Your task to perform on an android device: turn off sleep mode Image 0: 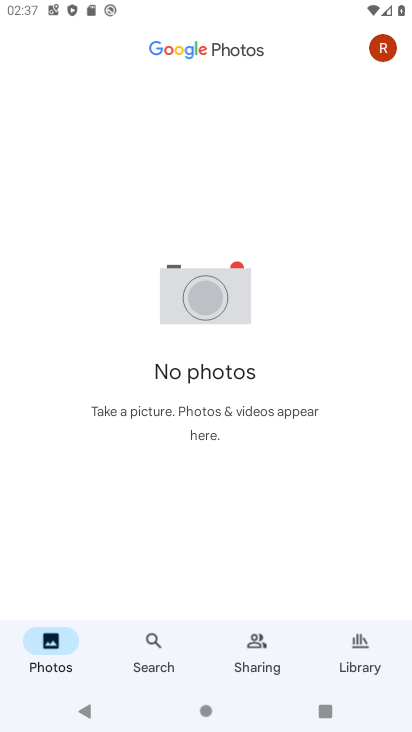
Step 0: press home button
Your task to perform on an android device: turn off sleep mode Image 1: 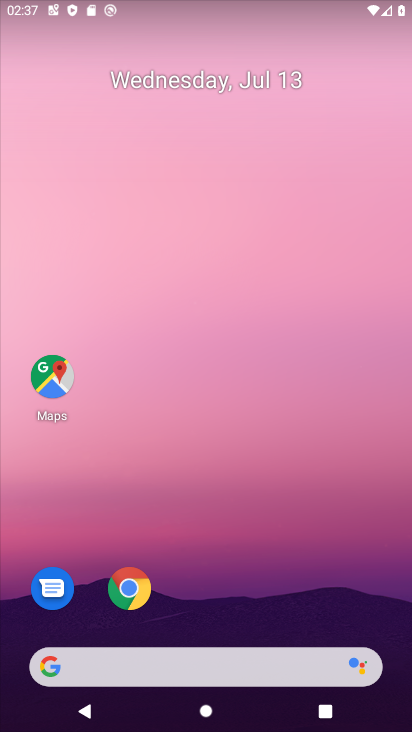
Step 1: drag from (385, 665) to (324, 285)
Your task to perform on an android device: turn off sleep mode Image 2: 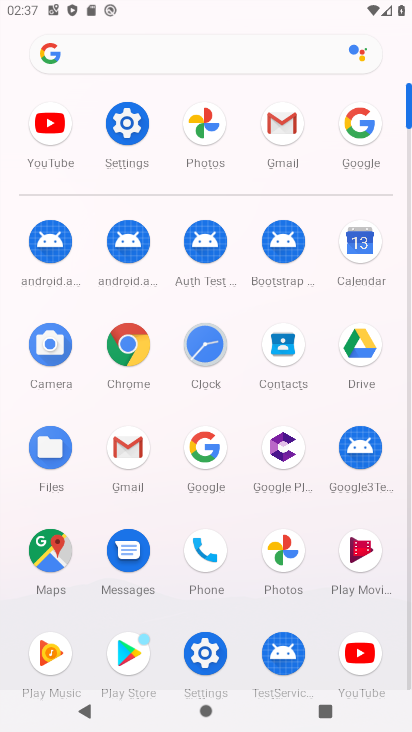
Step 2: click (122, 127)
Your task to perform on an android device: turn off sleep mode Image 3: 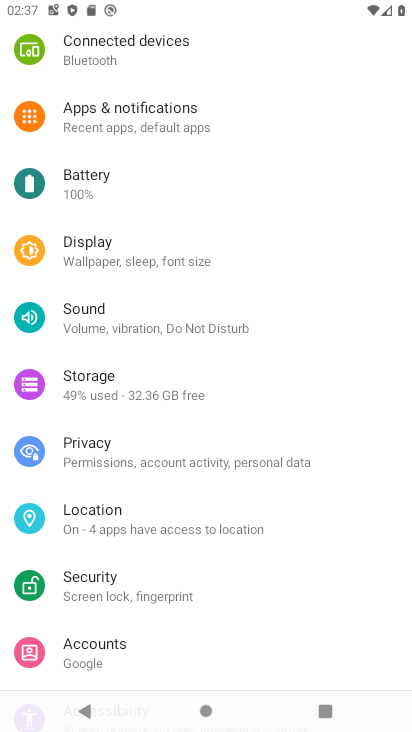
Step 3: click (106, 247)
Your task to perform on an android device: turn off sleep mode Image 4: 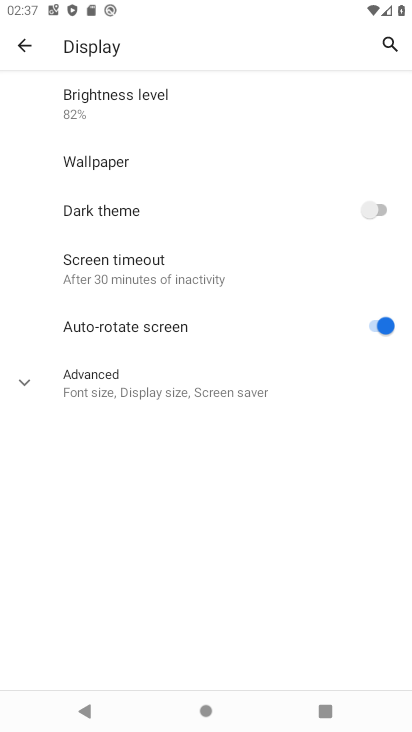
Step 4: click (104, 272)
Your task to perform on an android device: turn off sleep mode Image 5: 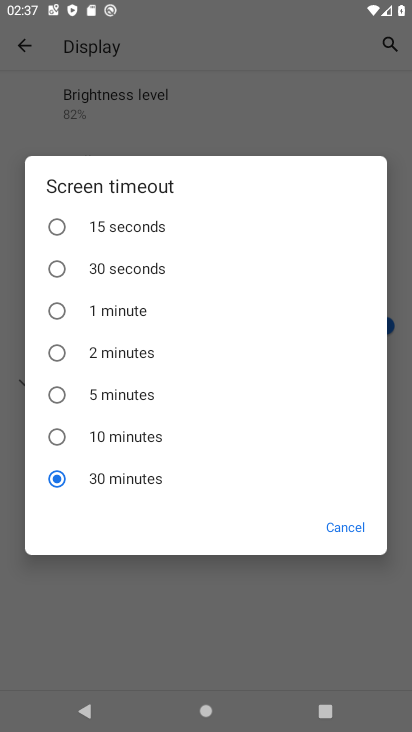
Step 5: task complete